Your task to perform on an android device: Go to privacy settings Image 0: 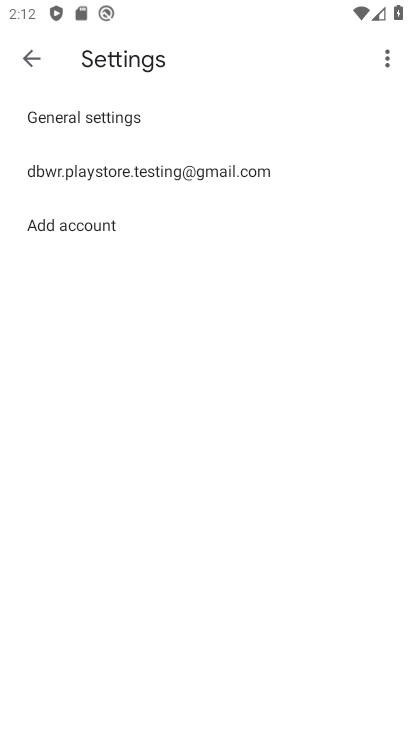
Step 0: press home button
Your task to perform on an android device: Go to privacy settings Image 1: 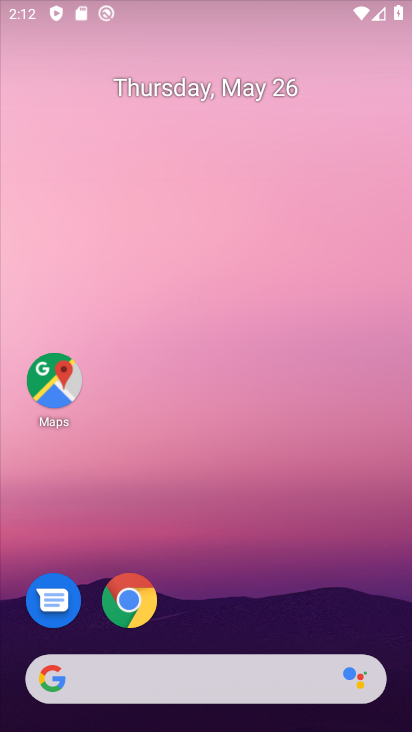
Step 1: drag from (298, 575) to (282, 168)
Your task to perform on an android device: Go to privacy settings Image 2: 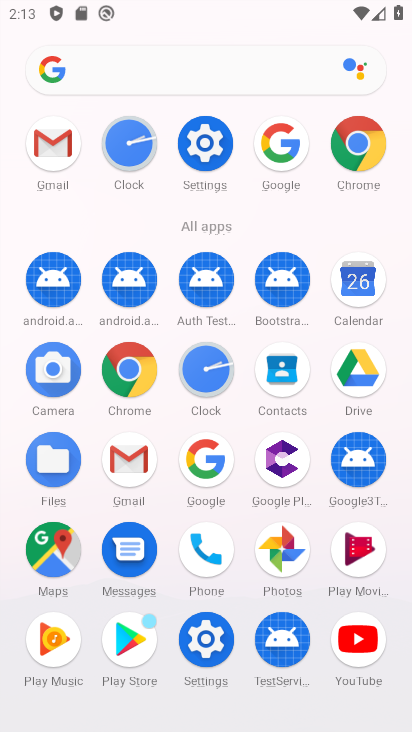
Step 2: click (200, 161)
Your task to perform on an android device: Go to privacy settings Image 3: 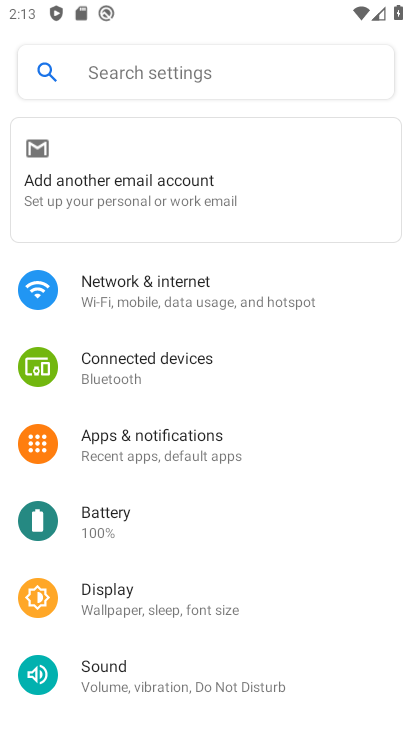
Step 3: drag from (209, 621) to (212, 199)
Your task to perform on an android device: Go to privacy settings Image 4: 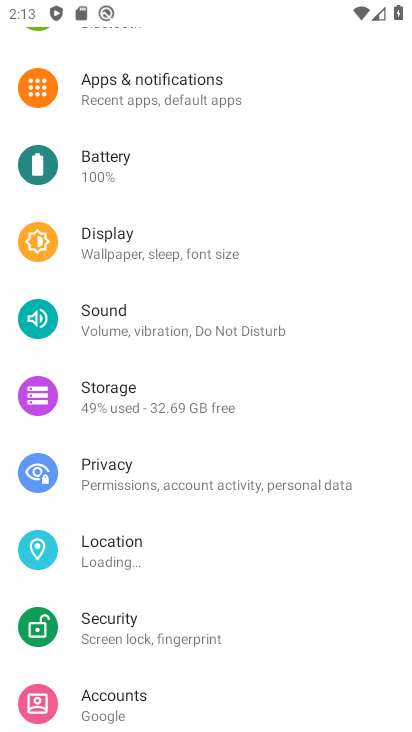
Step 4: click (161, 463)
Your task to perform on an android device: Go to privacy settings Image 5: 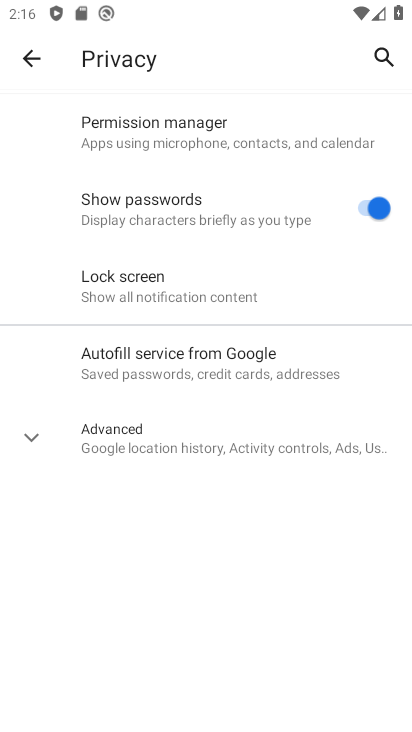
Step 5: task complete